Your task to perform on an android device: remove spam from my inbox in the gmail app Image 0: 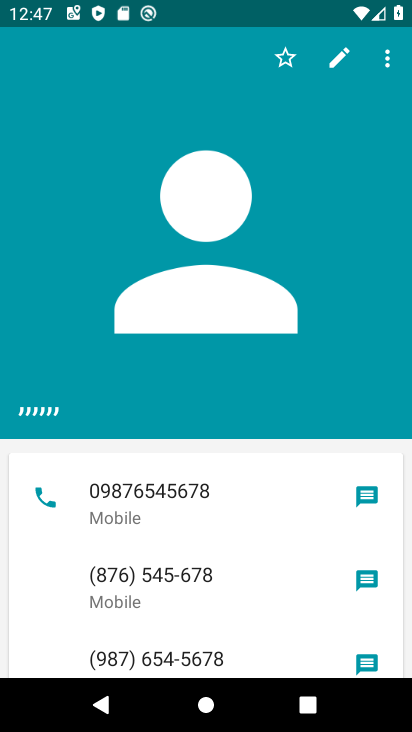
Step 0: click (182, 641)
Your task to perform on an android device: remove spam from my inbox in the gmail app Image 1: 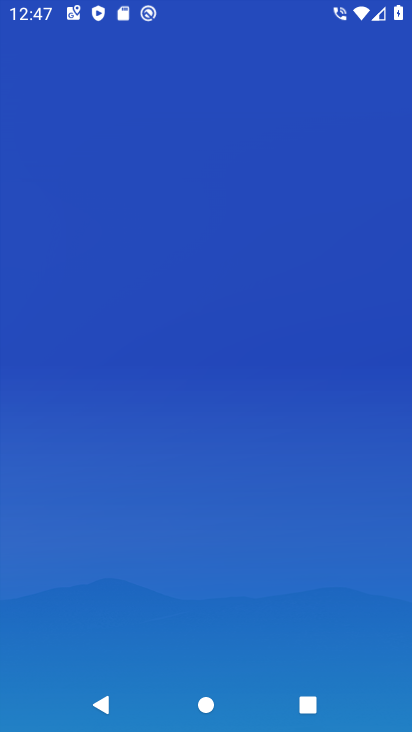
Step 1: press home button
Your task to perform on an android device: remove spam from my inbox in the gmail app Image 2: 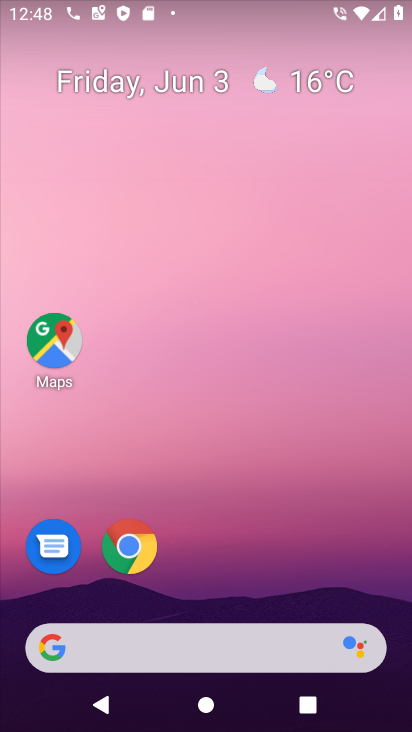
Step 2: drag from (229, 569) to (219, 172)
Your task to perform on an android device: remove spam from my inbox in the gmail app Image 3: 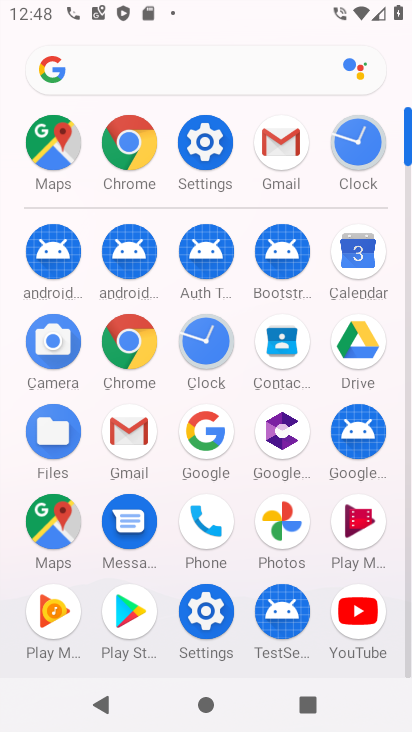
Step 3: click (270, 144)
Your task to perform on an android device: remove spam from my inbox in the gmail app Image 4: 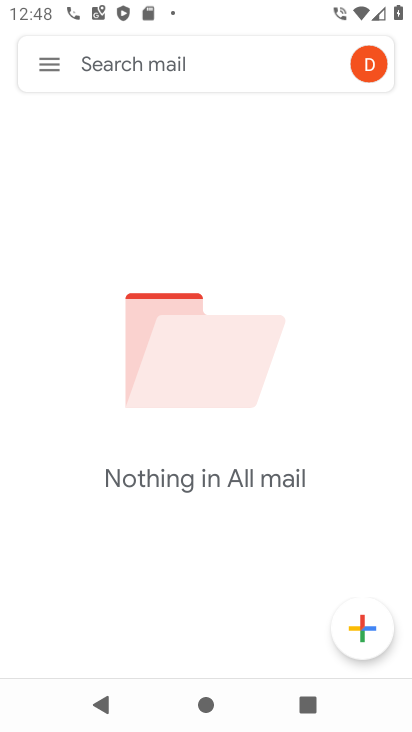
Step 4: click (41, 66)
Your task to perform on an android device: remove spam from my inbox in the gmail app Image 5: 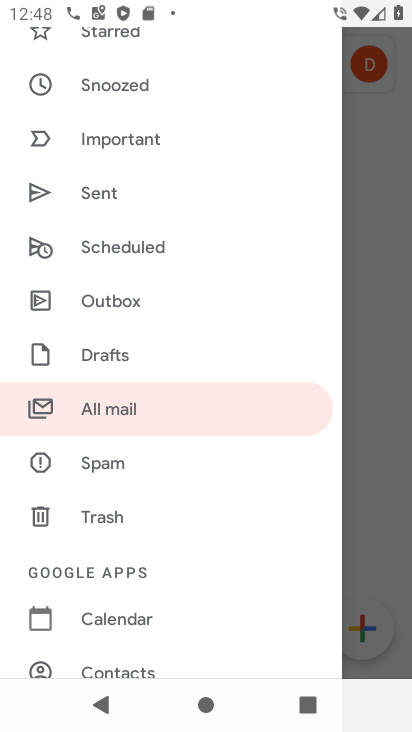
Step 5: click (110, 462)
Your task to perform on an android device: remove spam from my inbox in the gmail app Image 6: 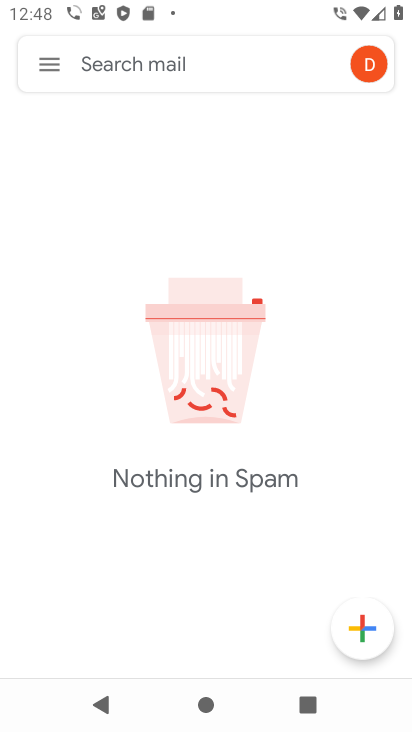
Step 6: task complete